Your task to perform on an android device: View the shopping cart on walmart.com. Search for sony triple a on walmart.com, select the first entry, and add it to the cart. Image 0: 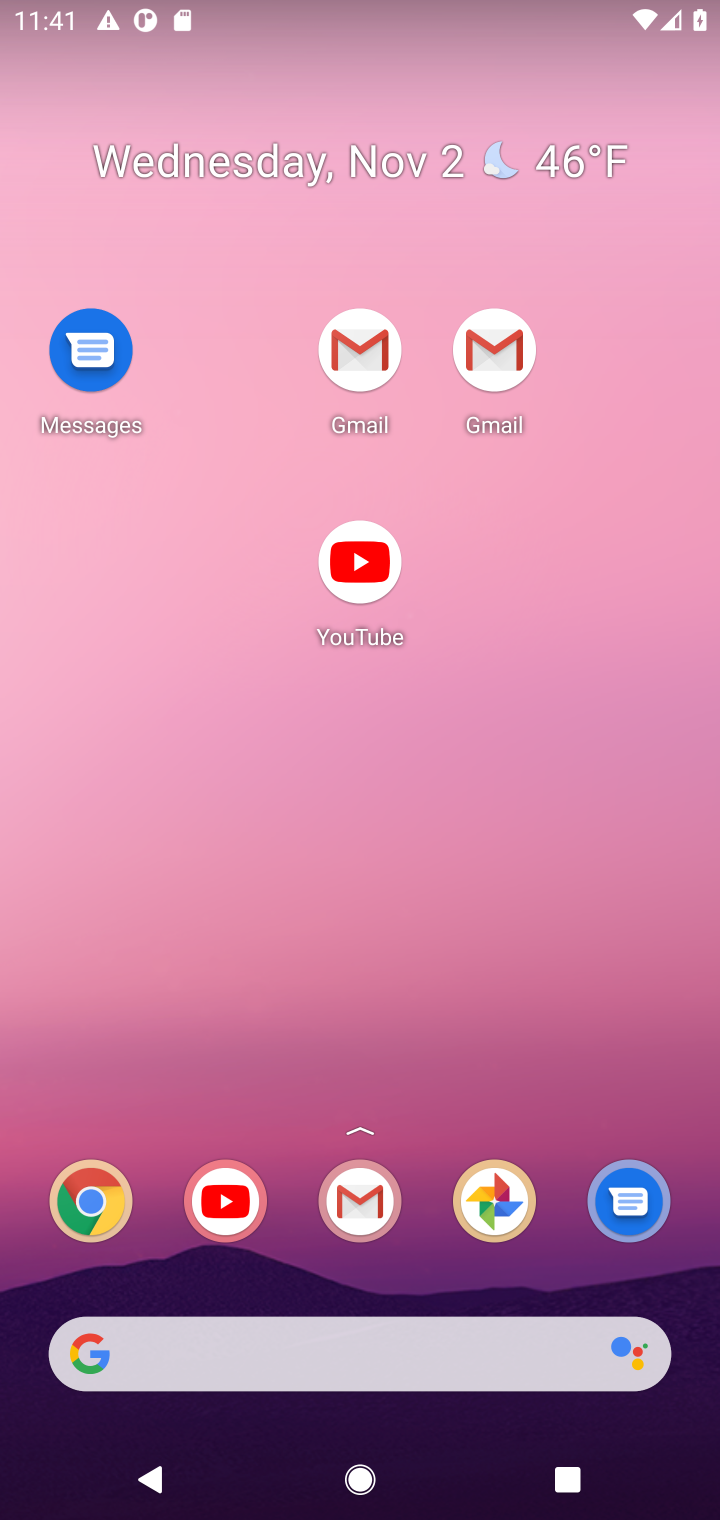
Step 0: drag from (437, 1275) to (427, 383)
Your task to perform on an android device: View the shopping cart on walmart.com. Search for sony triple a on walmart.com, select the first entry, and add it to the cart. Image 1: 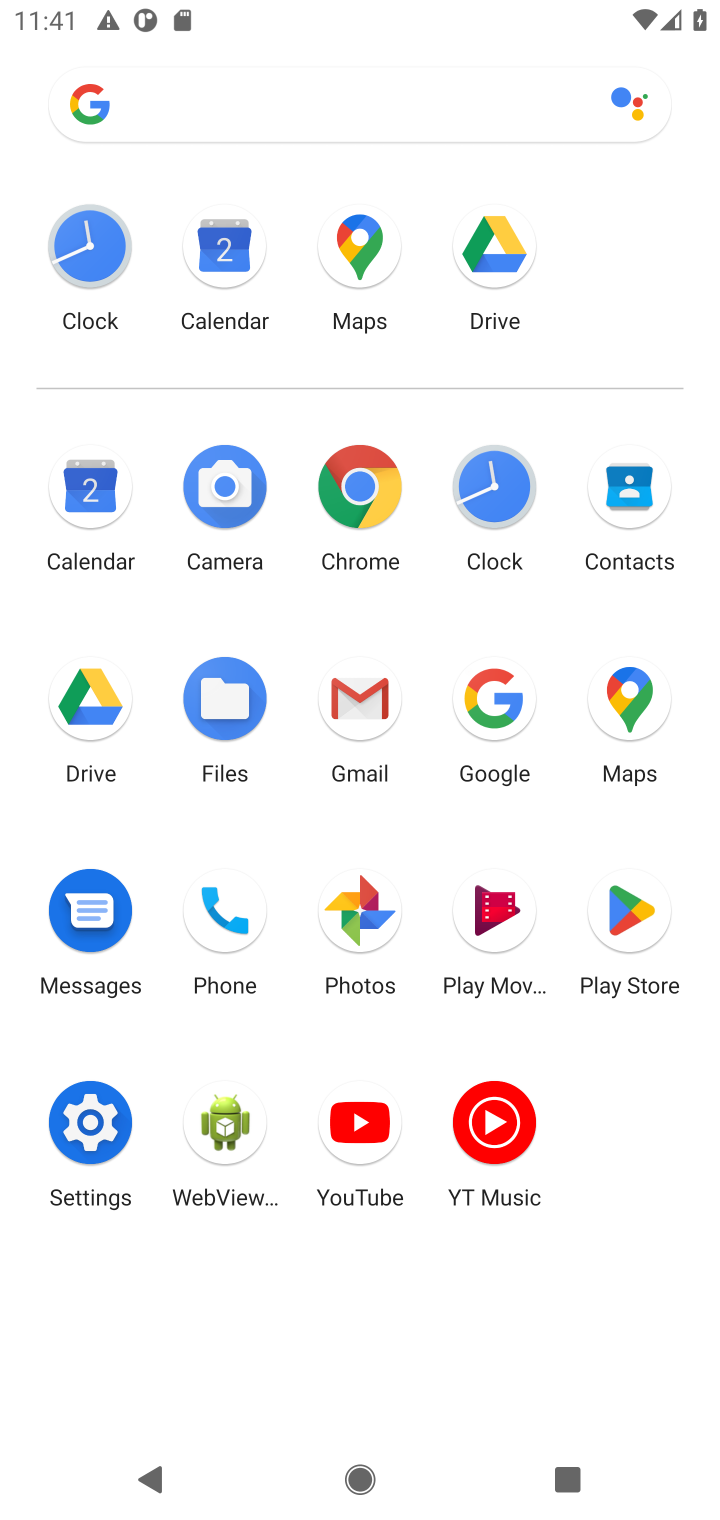
Step 1: click (351, 489)
Your task to perform on an android device: View the shopping cart on walmart.com. Search for sony triple a on walmart.com, select the first entry, and add it to the cart. Image 2: 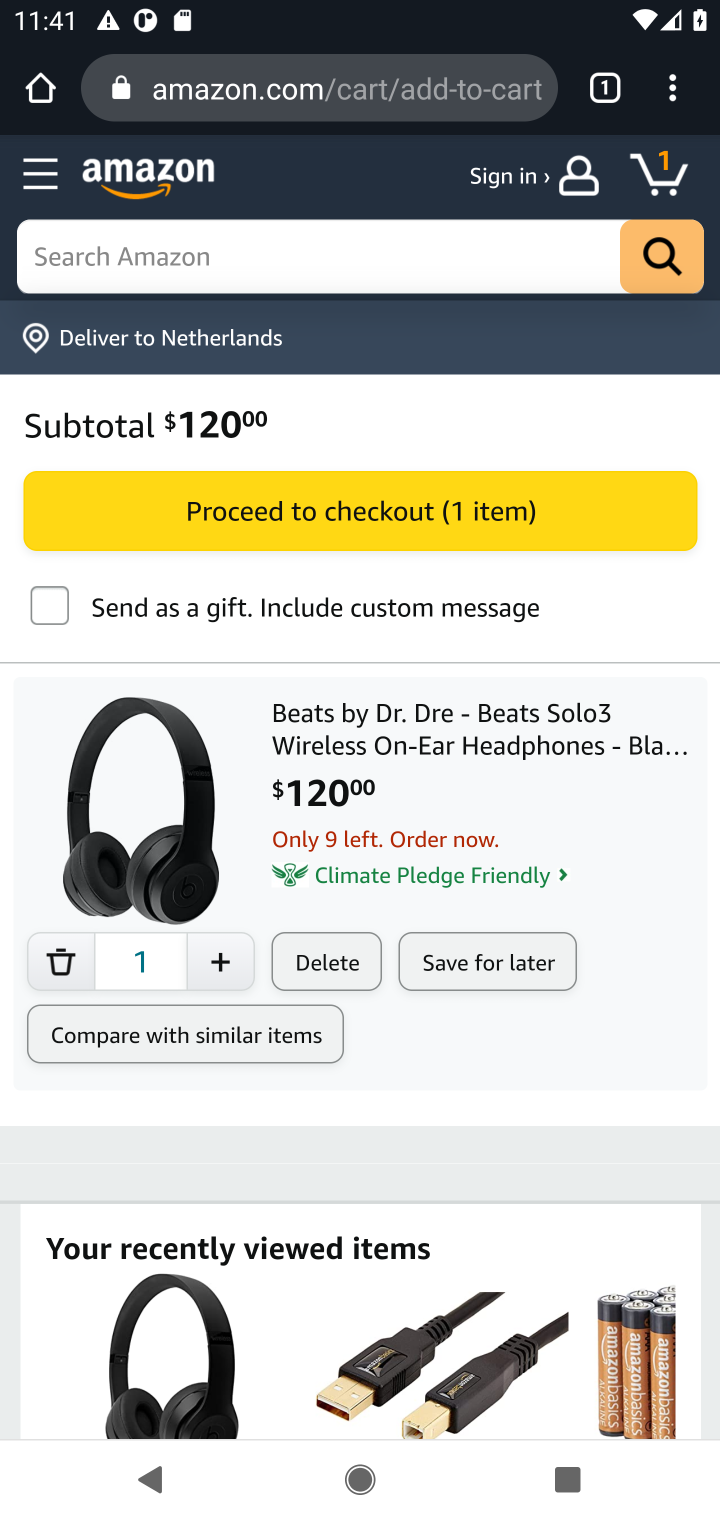
Step 2: click (495, 94)
Your task to perform on an android device: View the shopping cart on walmart.com. Search for sony triple a on walmart.com, select the first entry, and add it to the cart. Image 3: 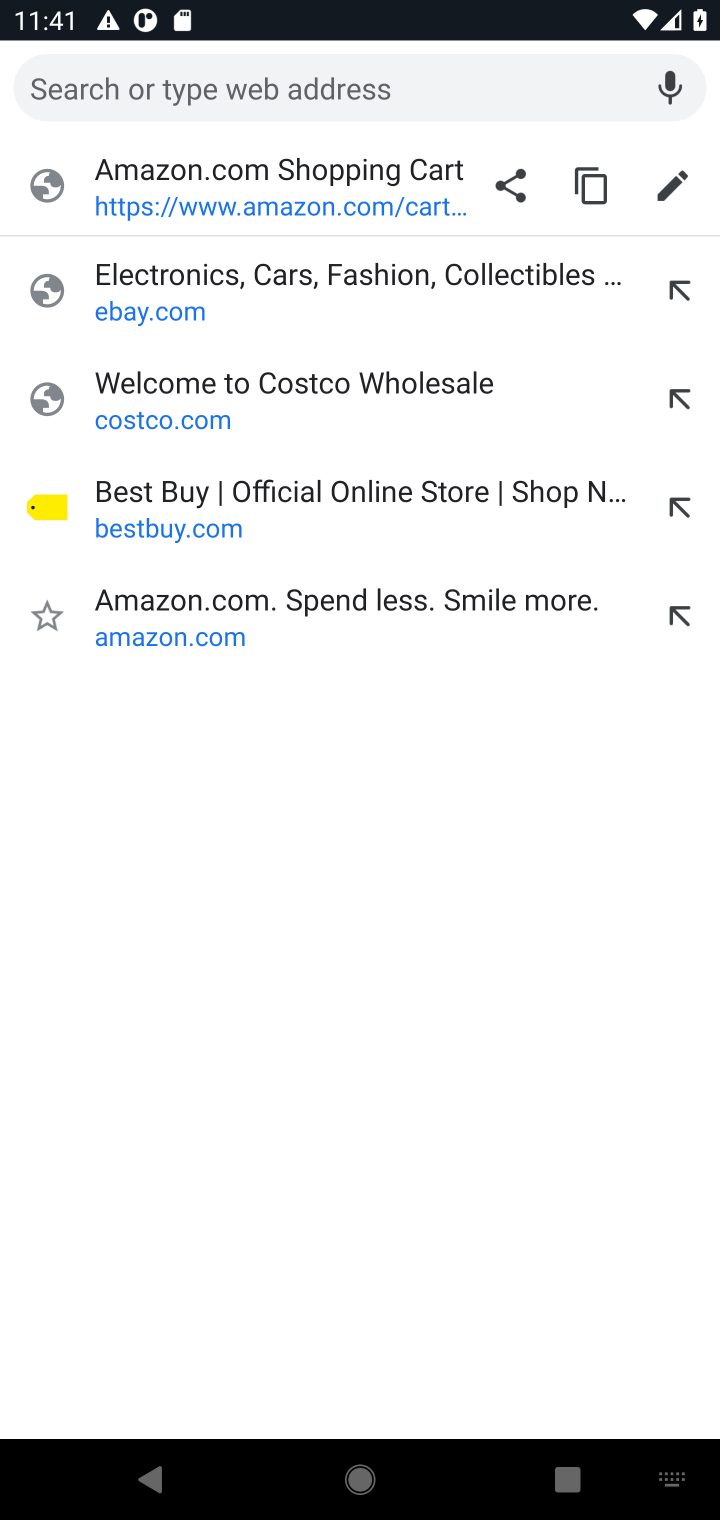
Step 3: type "walmart.com"
Your task to perform on an android device: View the shopping cart on walmart.com. Search for sony triple a on walmart.com, select the first entry, and add it to the cart. Image 4: 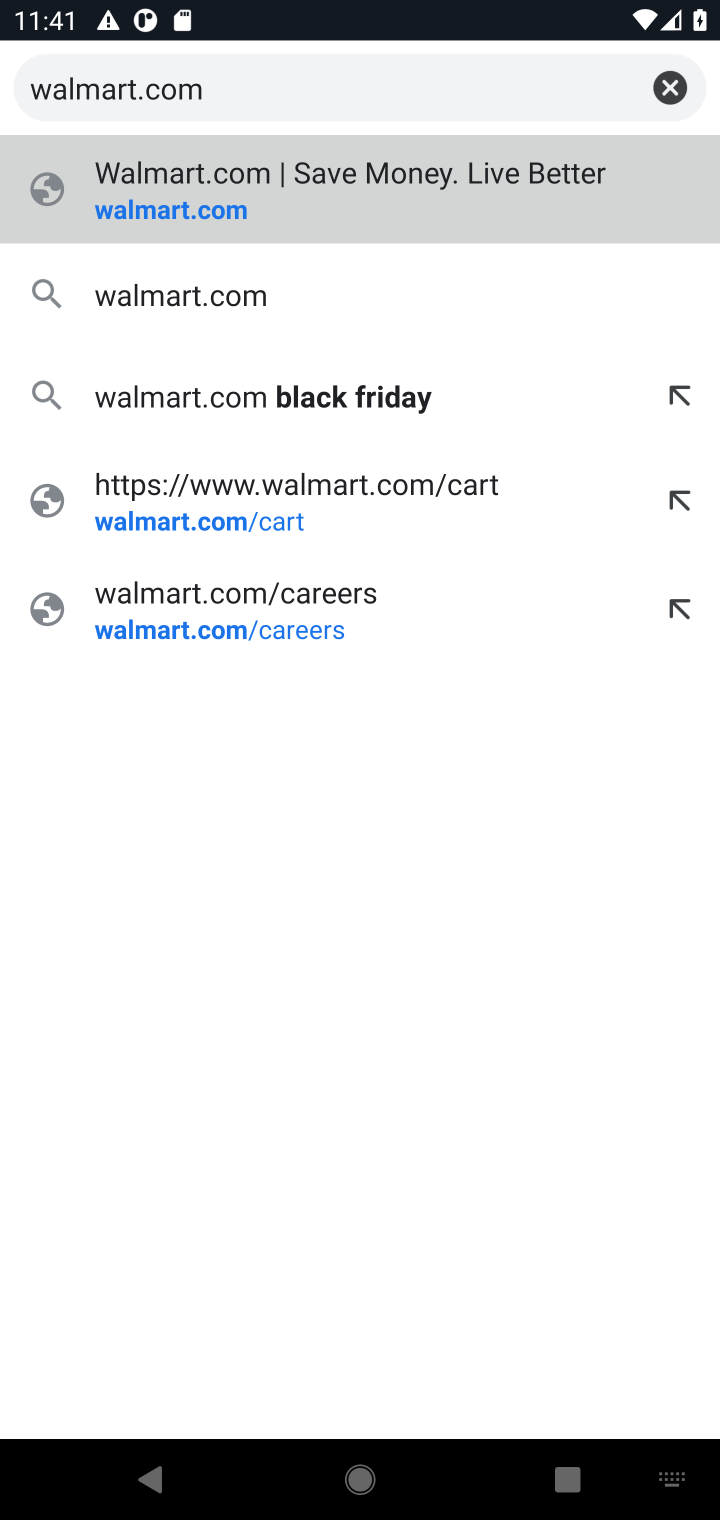
Step 4: press enter
Your task to perform on an android device: View the shopping cart on walmart.com. Search for sony triple a on walmart.com, select the first entry, and add it to the cart. Image 5: 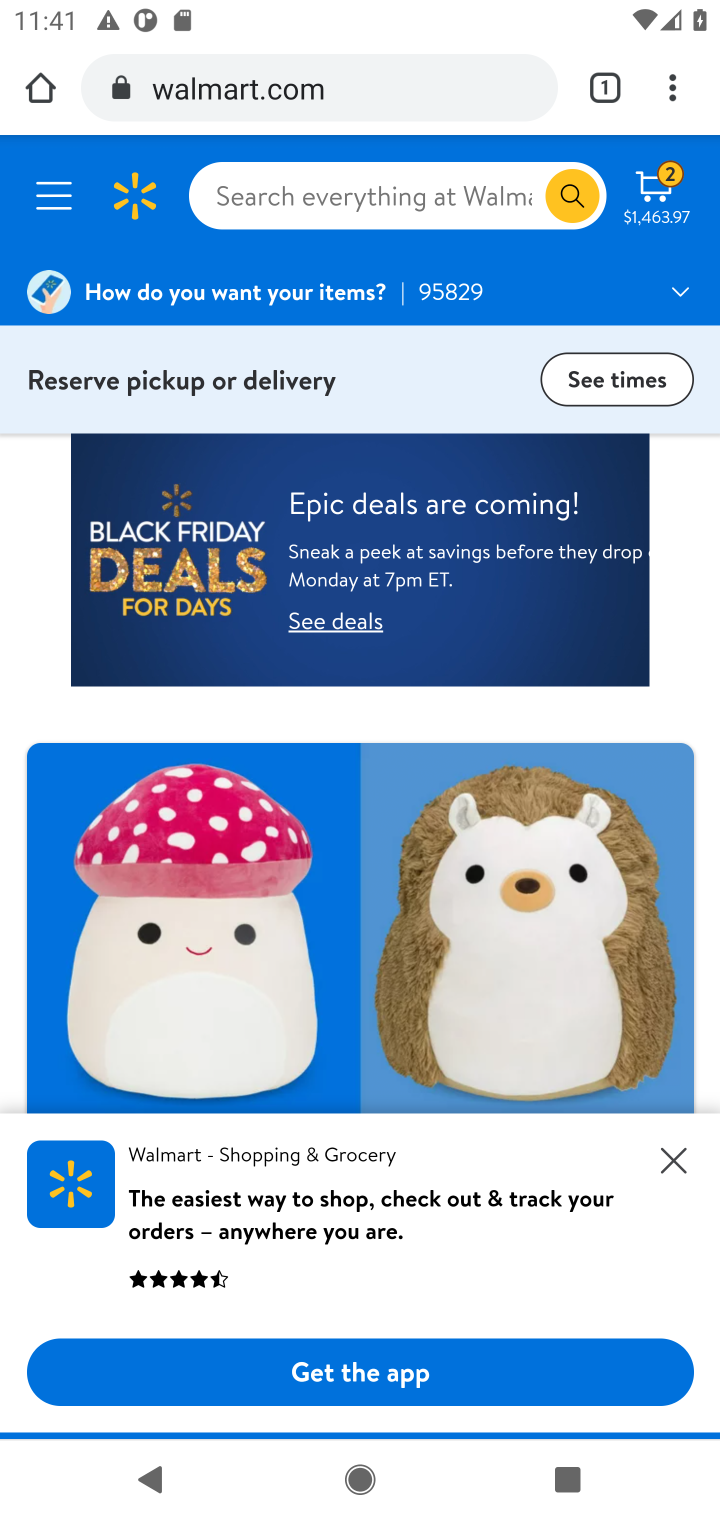
Step 5: click (647, 190)
Your task to perform on an android device: View the shopping cart on walmart.com. Search for sony triple a on walmart.com, select the first entry, and add it to the cart. Image 6: 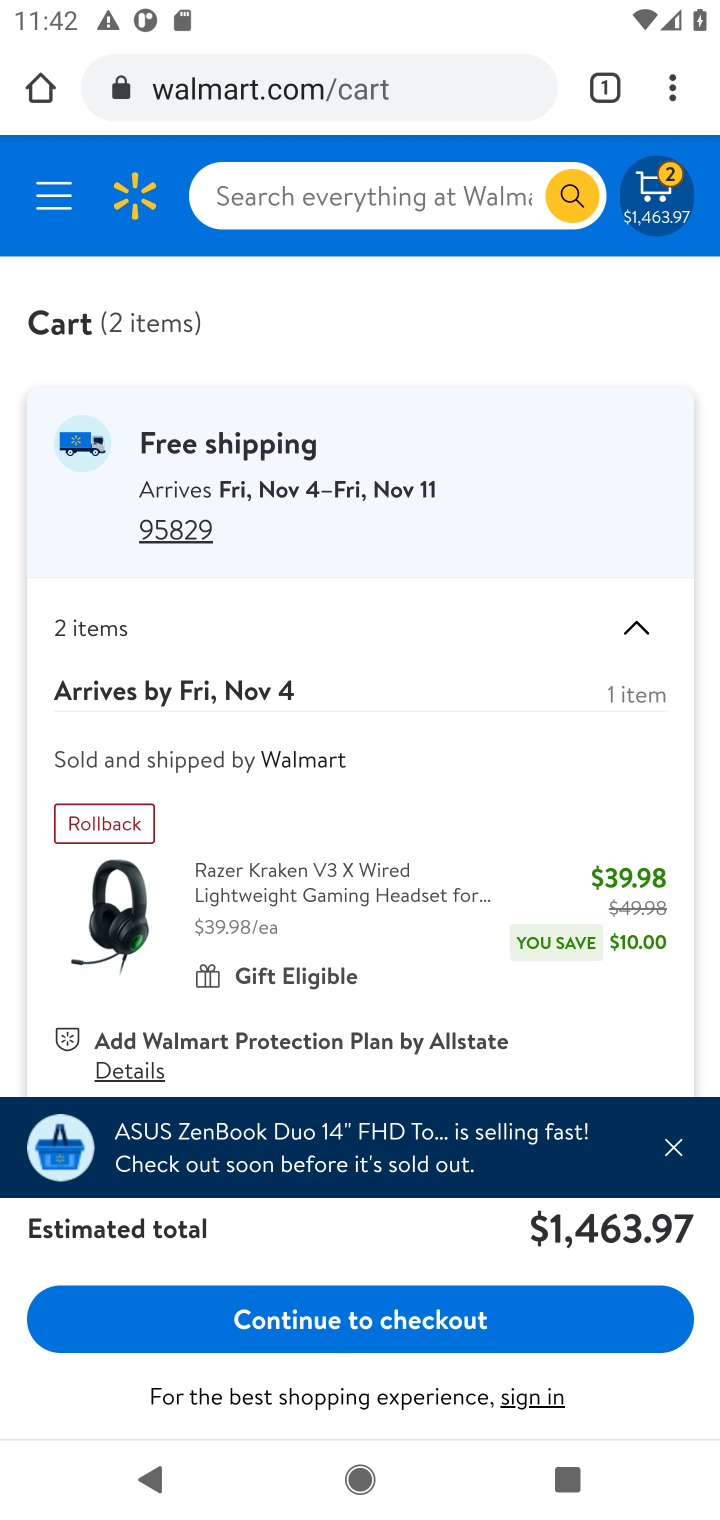
Step 6: click (460, 200)
Your task to perform on an android device: View the shopping cart on walmart.com. Search for sony triple a on walmart.com, select the first entry, and add it to the cart. Image 7: 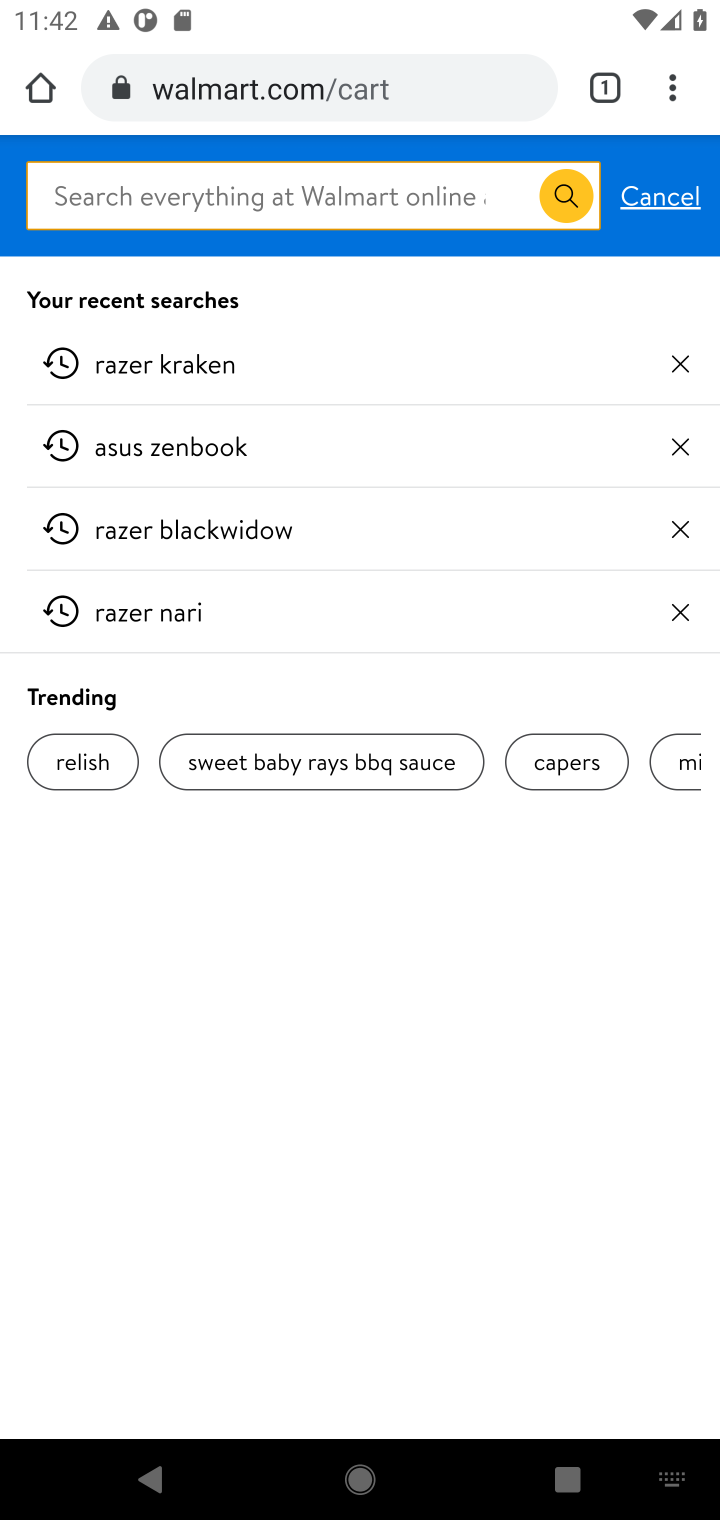
Step 7: type "sony triple a"
Your task to perform on an android device: View the shopping cart on walmart.com. Search for sony triple a on walmart.com, select the first entry, and add it to the cart. Image 8: 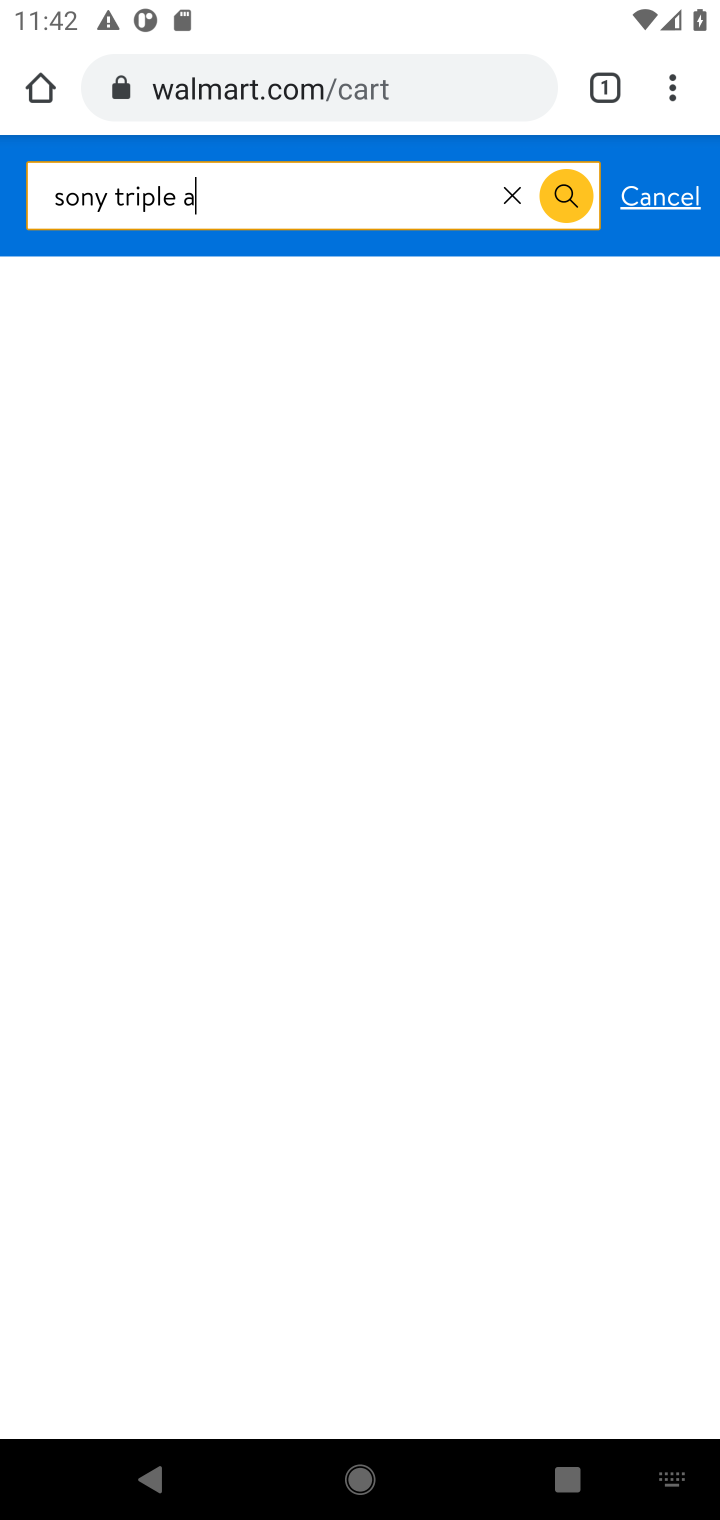
Step 8: press enter
Your task to perform on an android device: View the shopping cart on walmart.com. Search for sony triple a on walmart.com, select the first entry, and add it to the cart. Image 9: 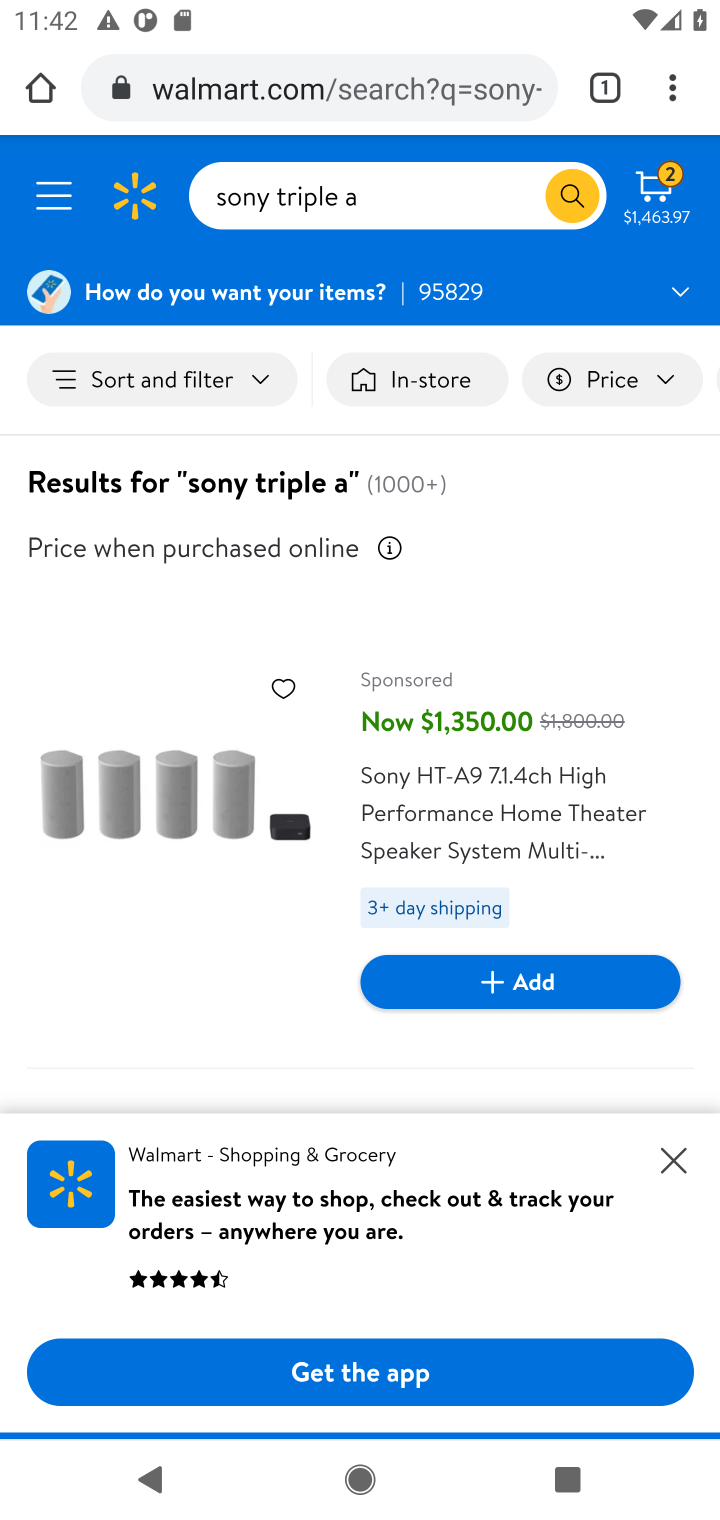
Step 9: drag from (302, 958) to (282, 248)
Your task to perform on an android device: View the shopping cart on walmart.com. Search for sony triple a on walmart.com, select the first entry, and add it to the cart. Image 10: 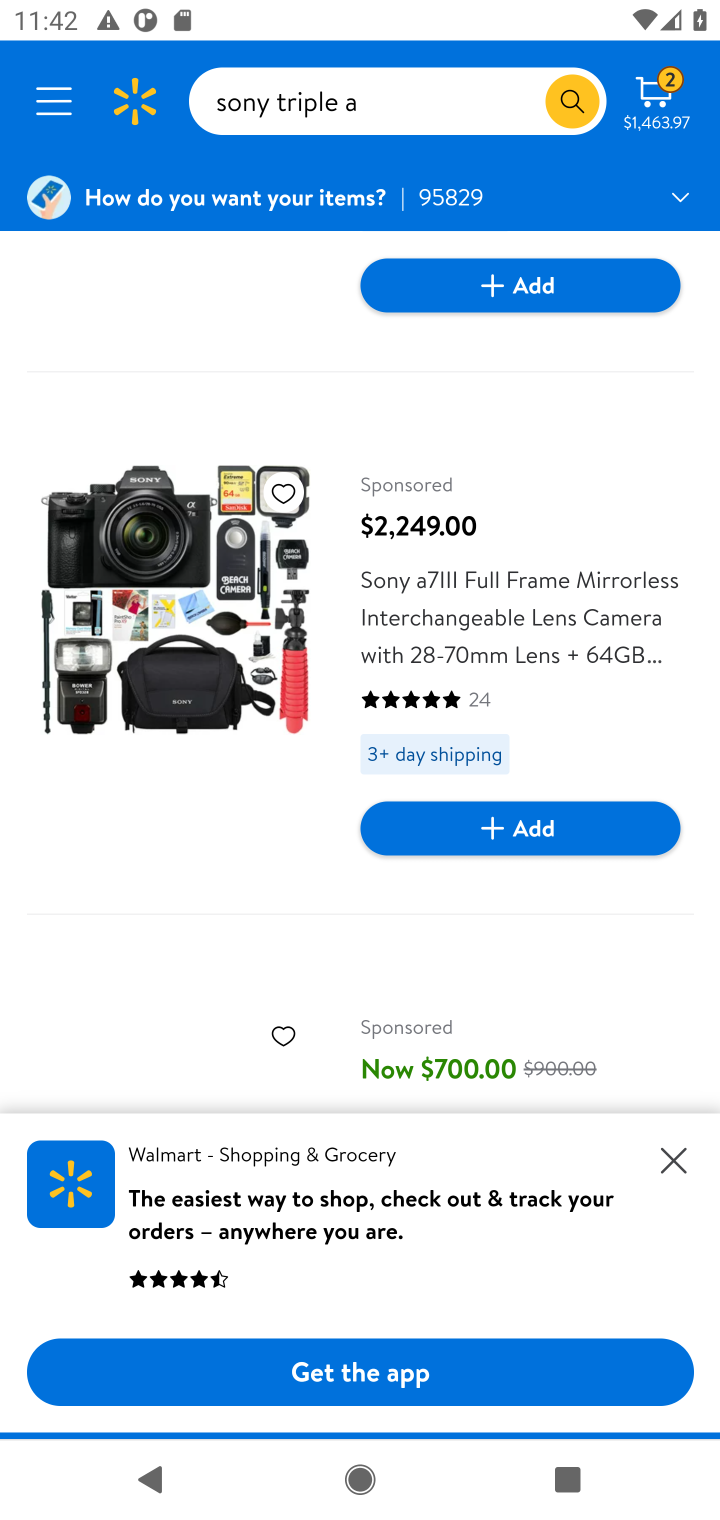
Step 10: drag from (301, 1022) to (347, 276)
Your task to perform on an android device: View the shopping cart on walmart.com. Search for sony triple a on walmart.com, select the first entry, and add it to the cart. Image 11: 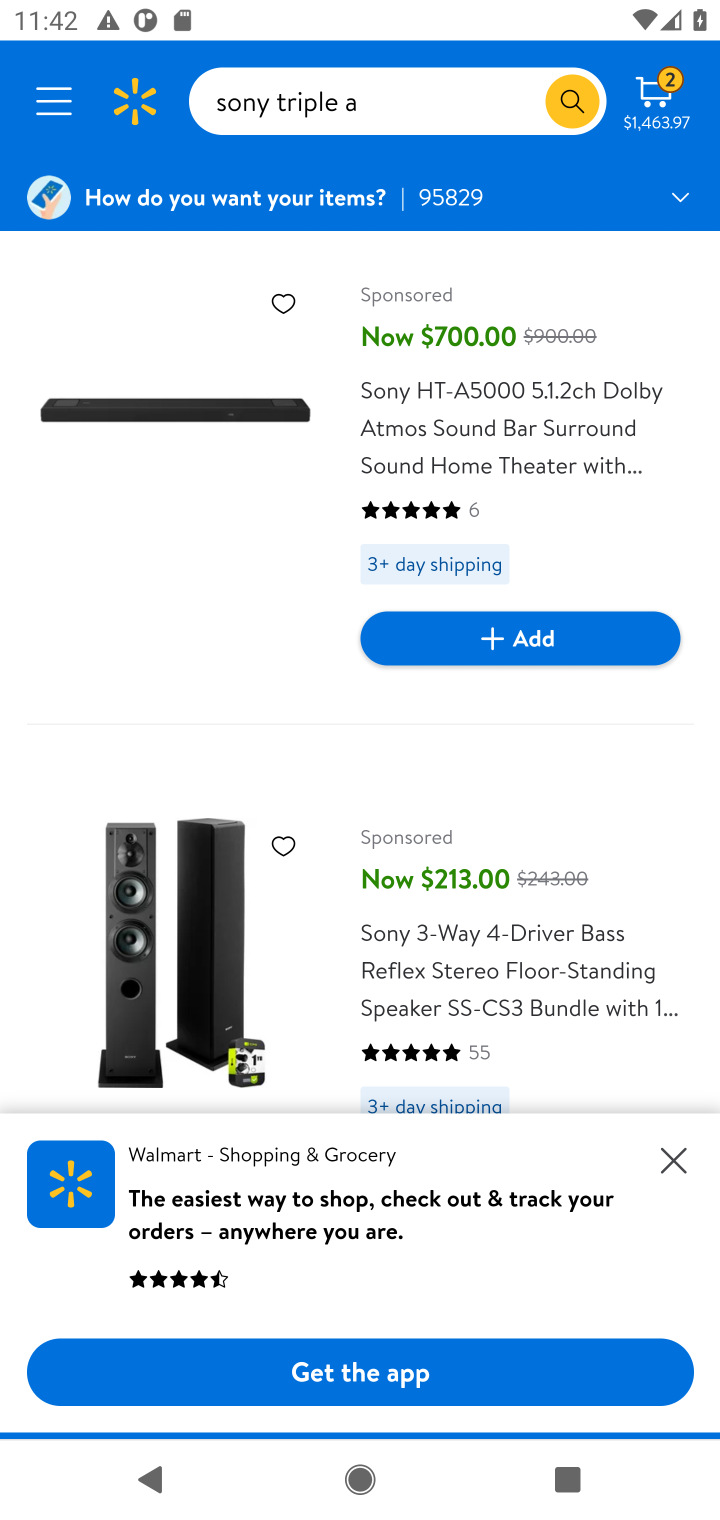
Step 11: drag from (240, 1021) to (249, 240)
Your task to perform on an android device: View the shopping cart on walmart.com. Search for sony triple a on walmart.com, select the first entry, and add it to the cart. Image 12: 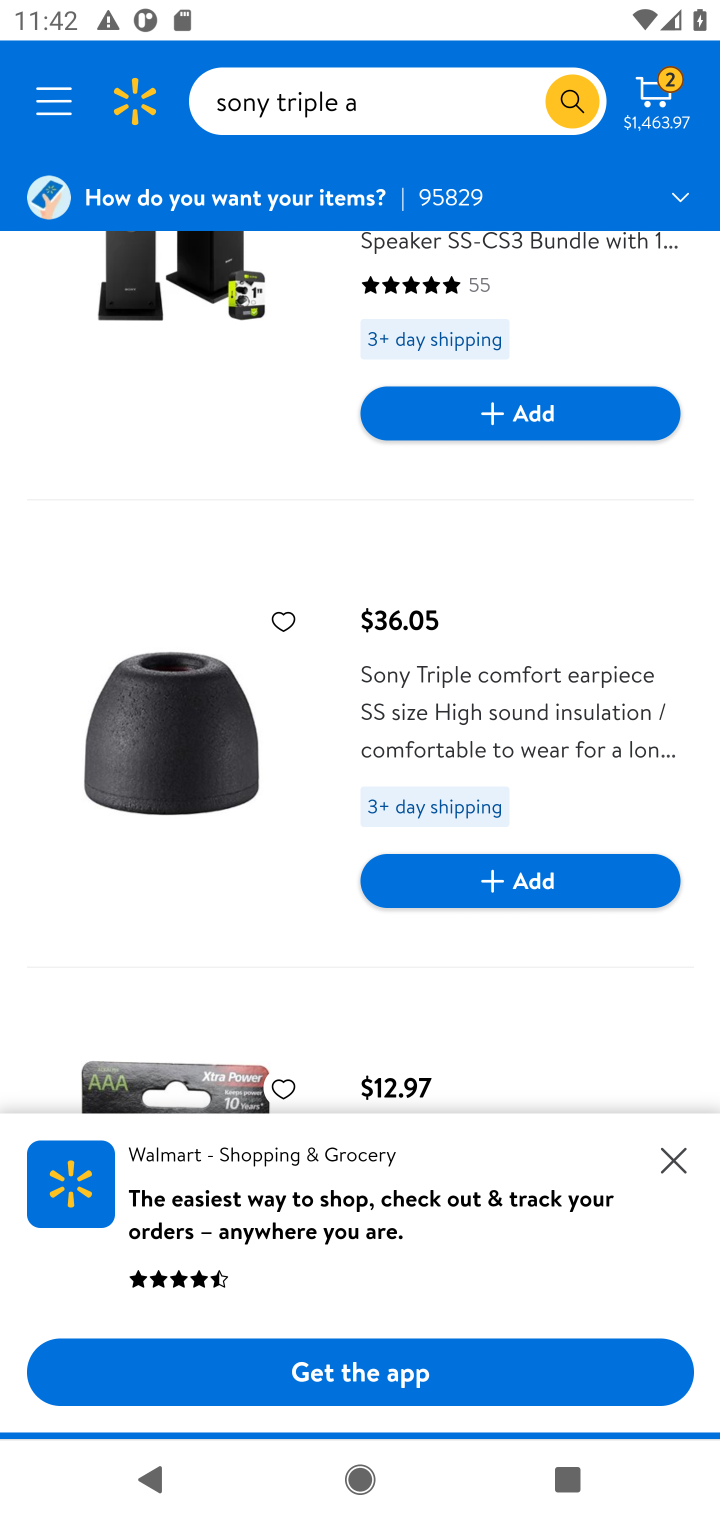
Step 12: drag from (289, 882) to (263, 483)
Your task to perform on an android device: View the shopping cart on walmart.com. Search for sony triple a on walmart.com, select the first entry, and add it to the cart. Image 13: 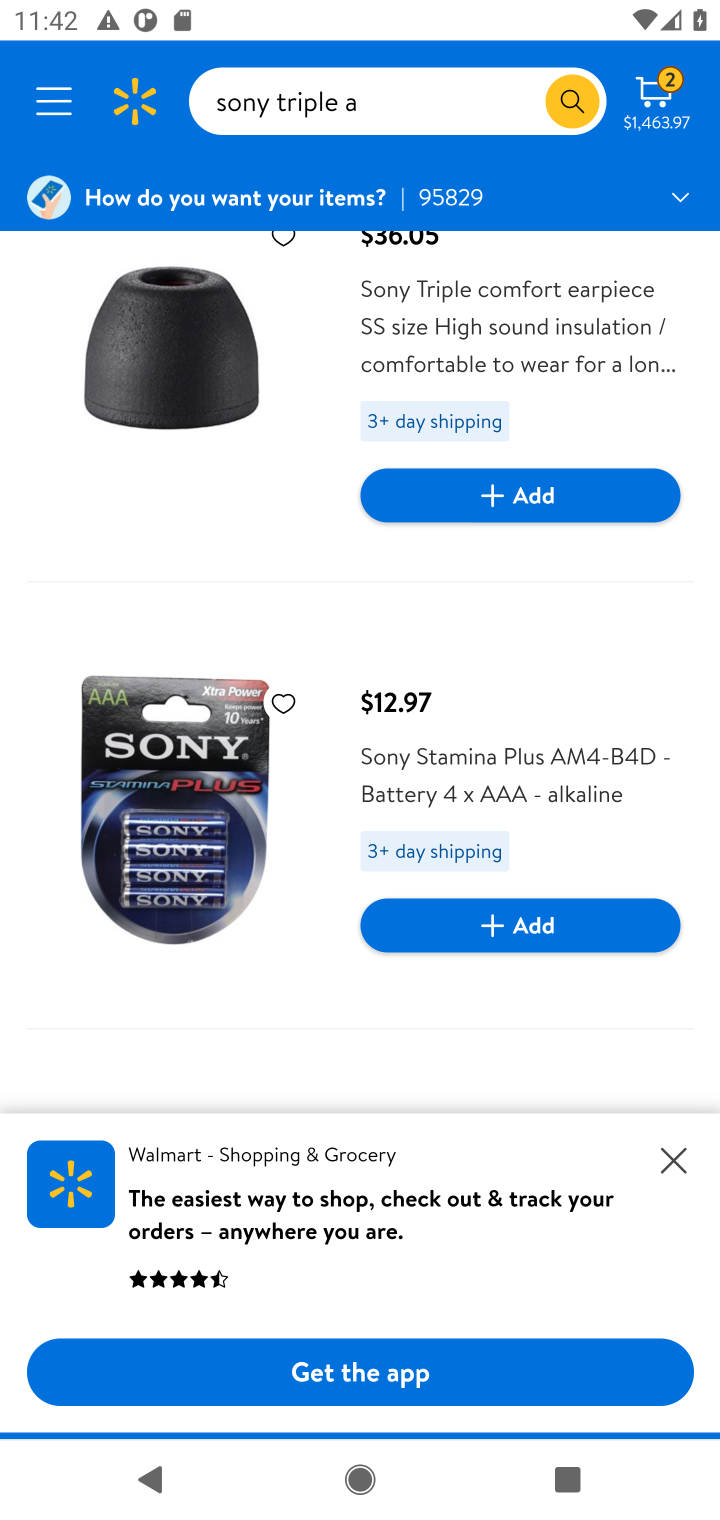
Step 13: click (467, 917)
Your task to perform on an android device: View the shopping cart on walmart.com. Search for sony triple a on walmart.com, select the first entry, and add it to the cart. Image 14: 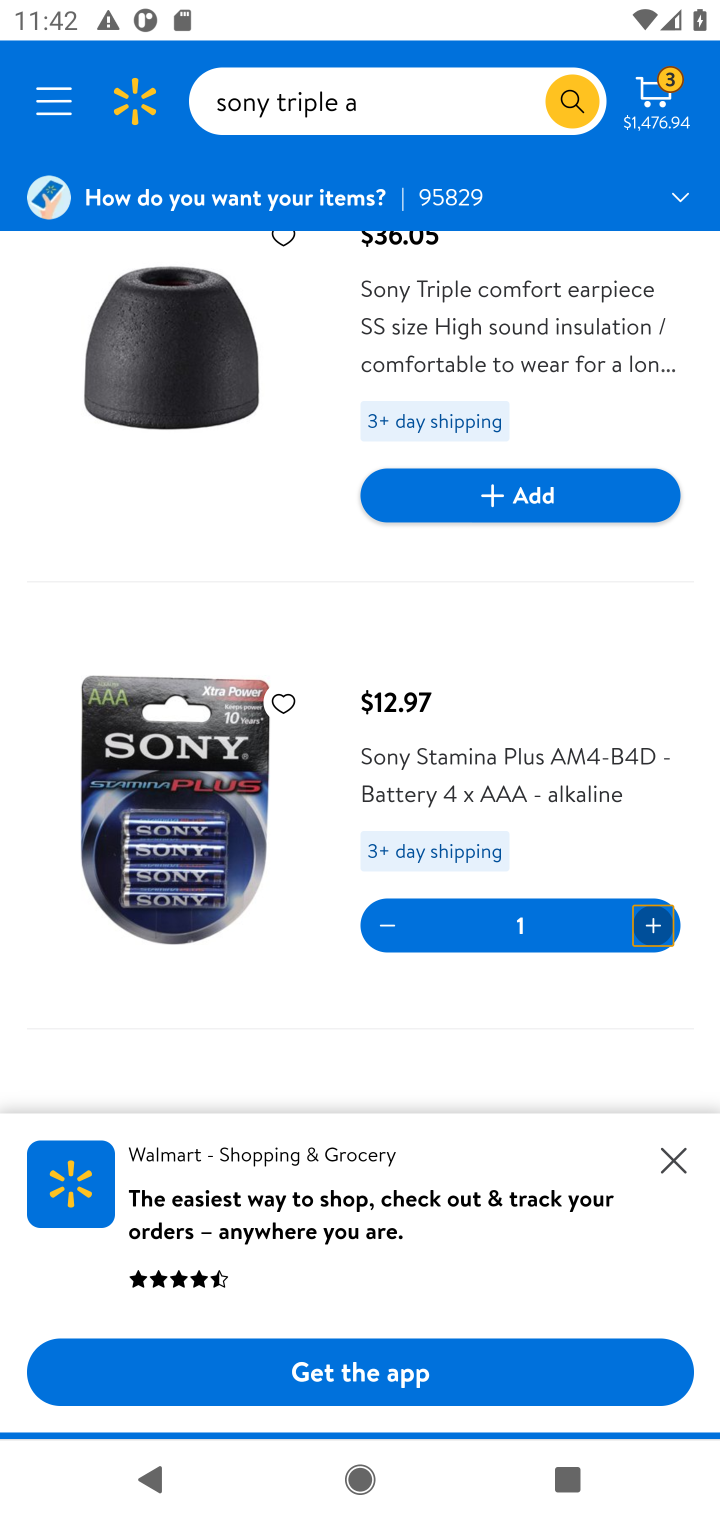
Step 14: task complete